Your task to perform on an android device: Open wifi settings Image 0: 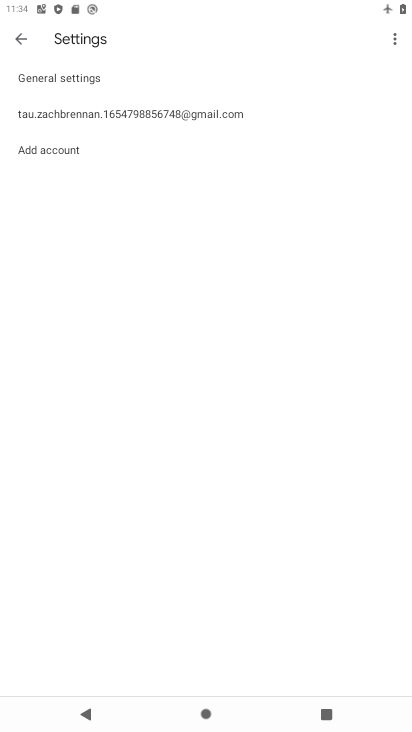
Step 0: press home button
Your task to perform on an android device: Open wifi settings Image 1: 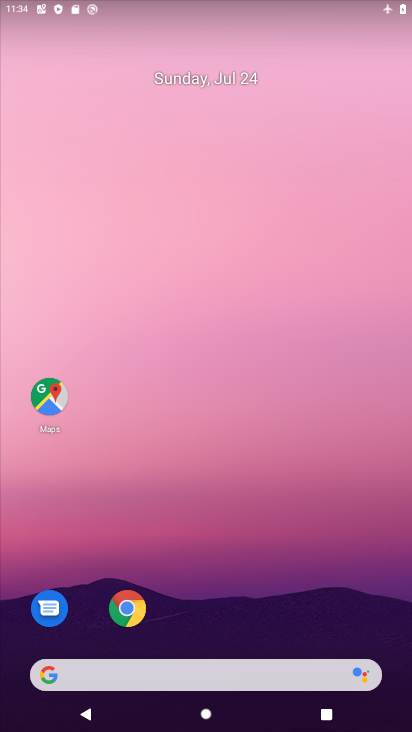
Step 1: drag from (212, 602) to (190, 1)
Your task to perform on an android device: Open wifi settings Image 2: 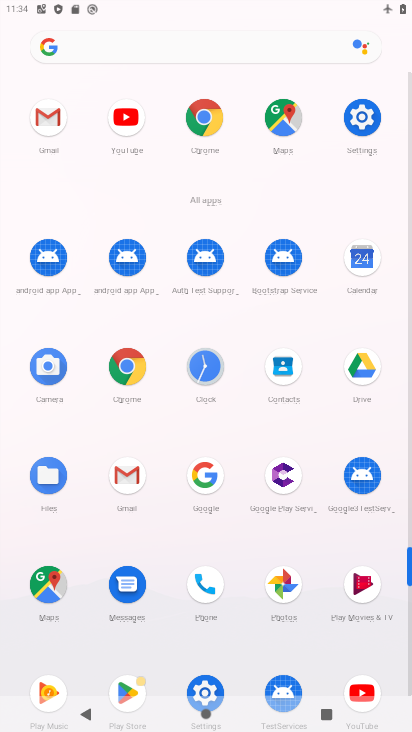
Step 2: click (363, 124)
Your task to perform on an android device: Open wifi settings Image 3: 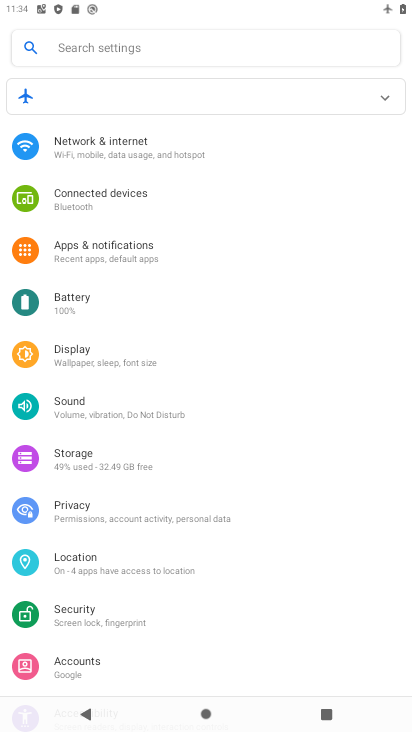
Step 3: click (91, 154)
Your task to perform on an android device: Open wifi settings Image 4: 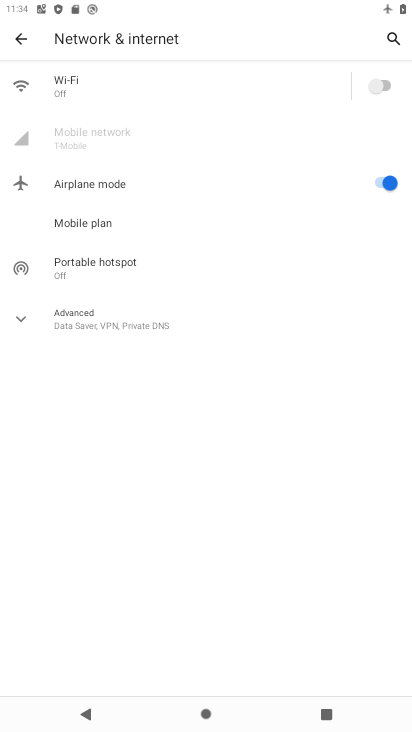
Step 4: click (22, 94)
Your task to perform on an android device: Open wifi settings Image 5: 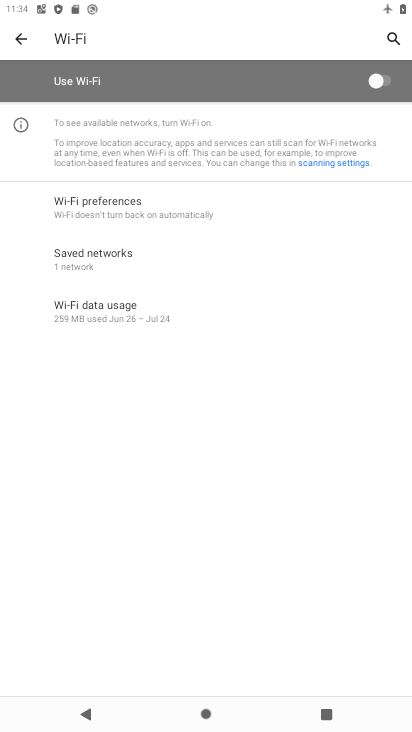
Step 5: task complete